Your task to perform on an android device: Go to Reddit.com Image 0: 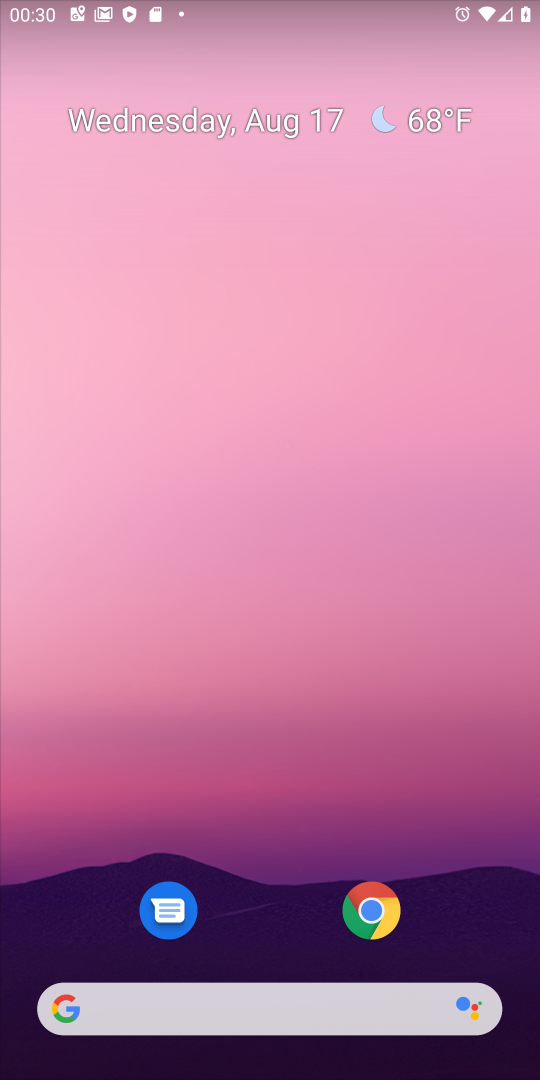
Step 0: drag from (276, 872) to (209, 104)
Your task to perform on an android device: Go to Reddit.com Image 1: 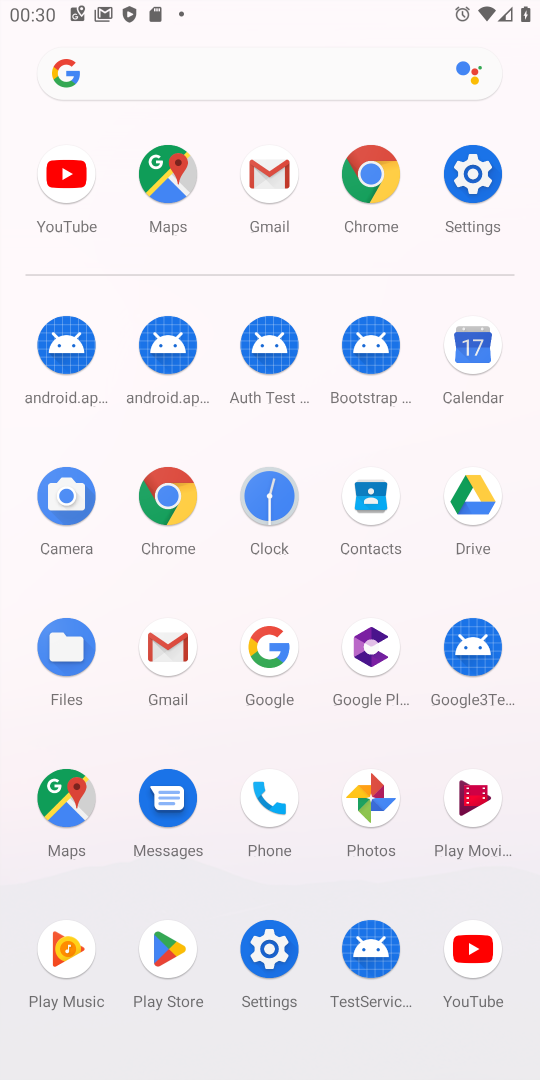
Step 1: click (164, 492)
Your task to perform on an android device: Go to Reddit.com Image 2: 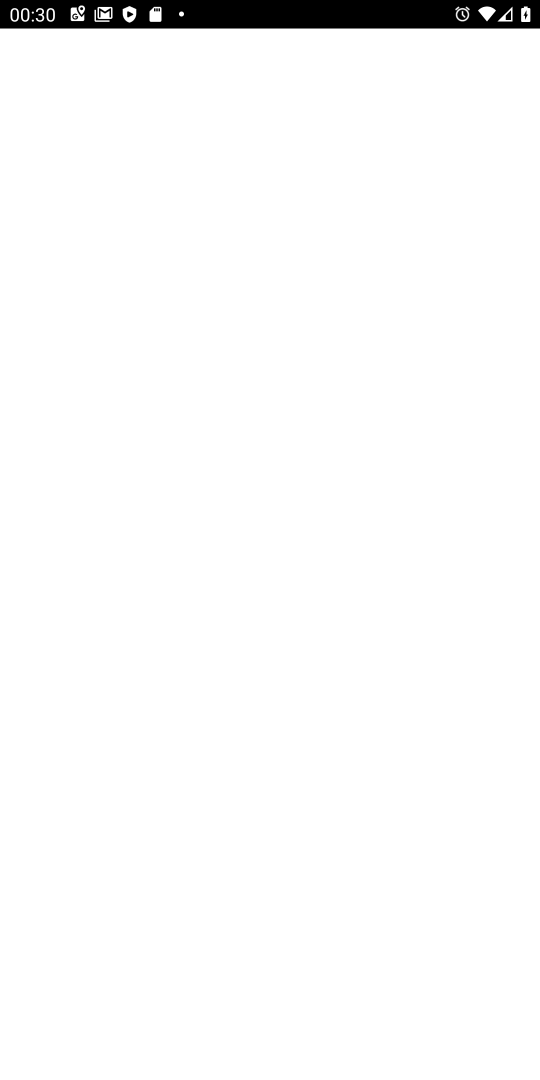
Step 2: click (168, 490)
Your task to perform on an android device: Go to Reddit.com Image 3: 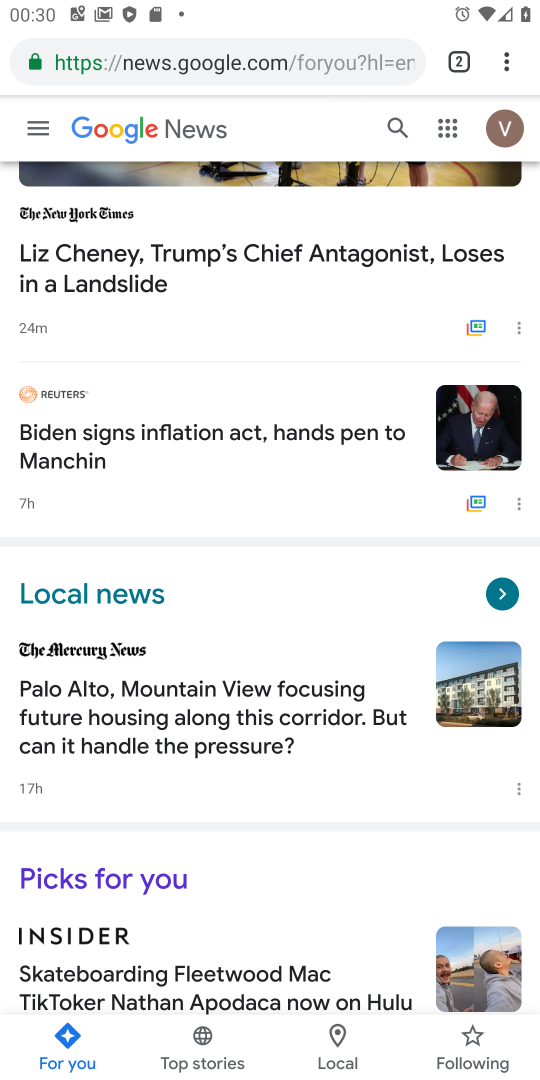
Step 3: click (275, 69)
Your task to perform on an android device: Go to Reddit.com Image 4: 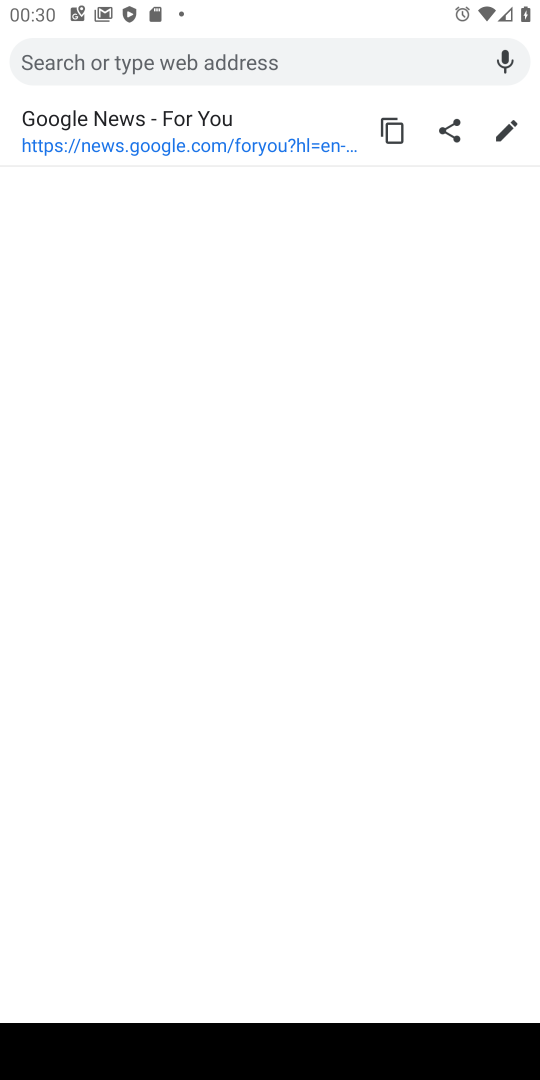
Step 4: type "reddit.com"
Your task to perform on an android device: Go to Reddit.com Image 5: 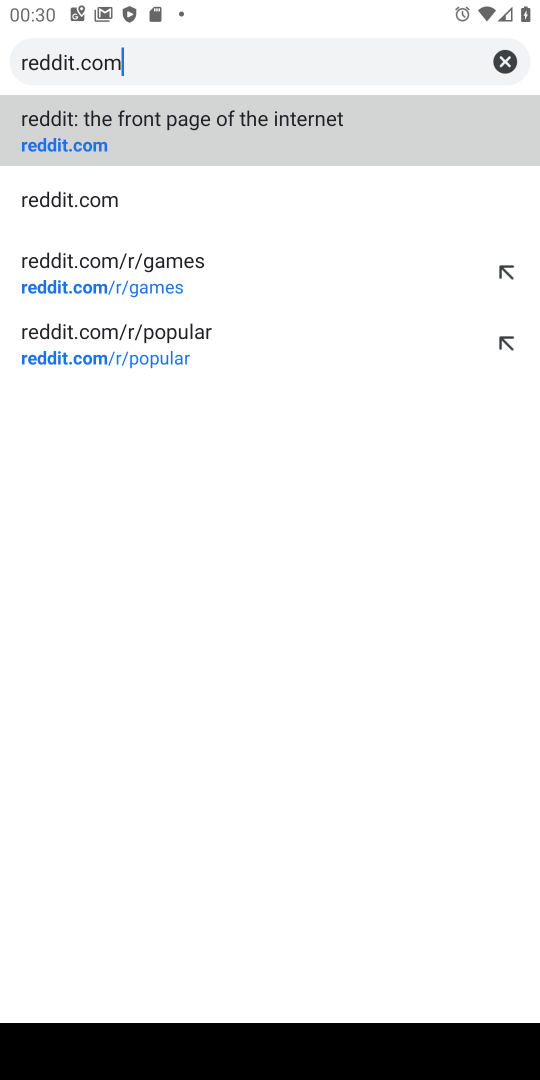
Step 5: click (158, 137)
Your task to perform on an android device: Go to Reddit.com Image 6: 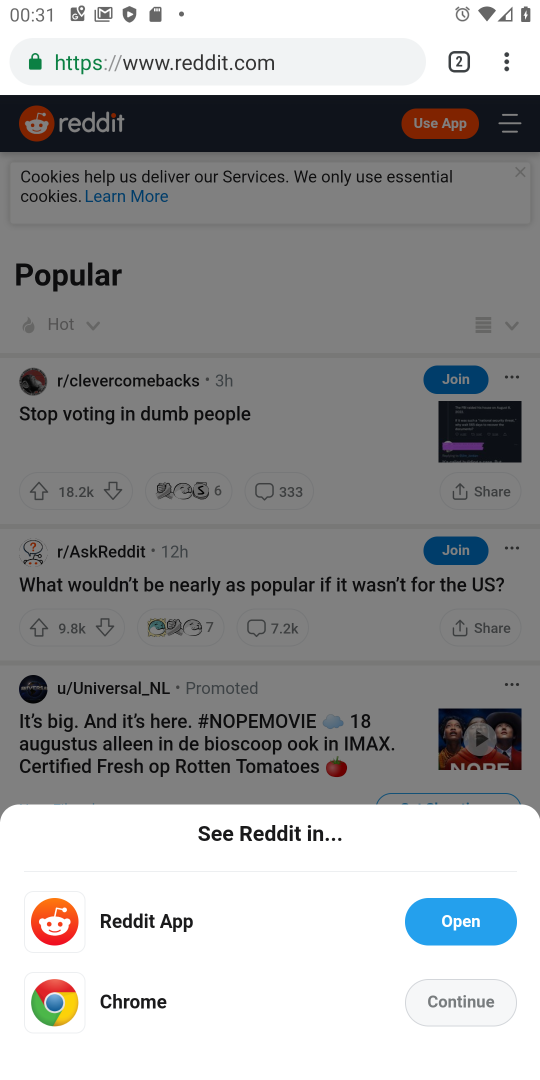
Step 6: task complete